Your task to perform on an android device: turn off location Image 0: 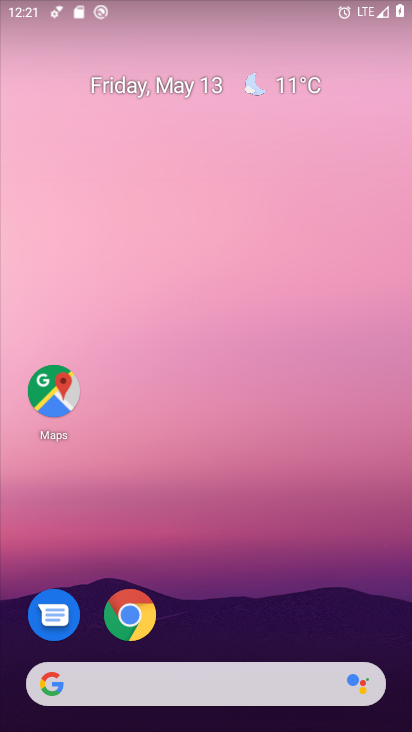
Step 0: drag from (281, 573) to (292, 1)
Your task to perform on an android device: turn off location Image 1: 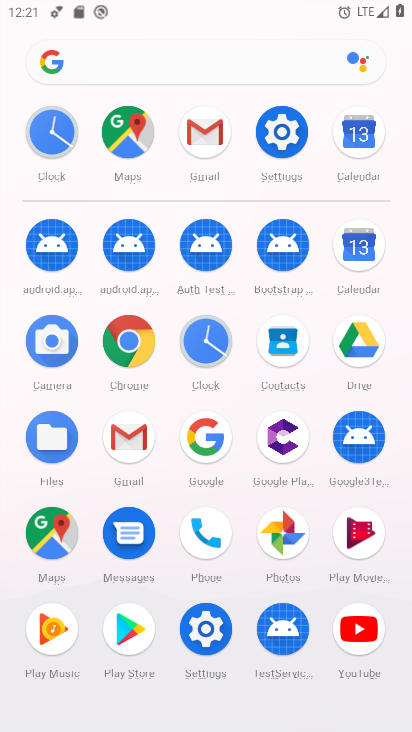
Step 1: click (282, 120)
Your task to perform on an android device: turn off location Image 2: 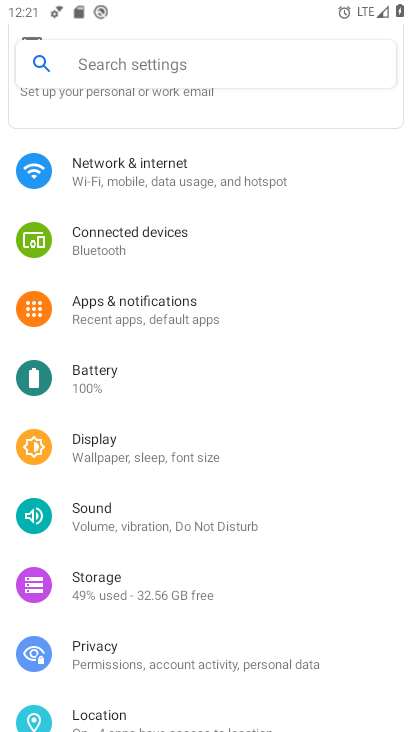
Step 2: drag from (151, 603) to (206, 255)
Your task to perform on an android device: turn off location Image 3: 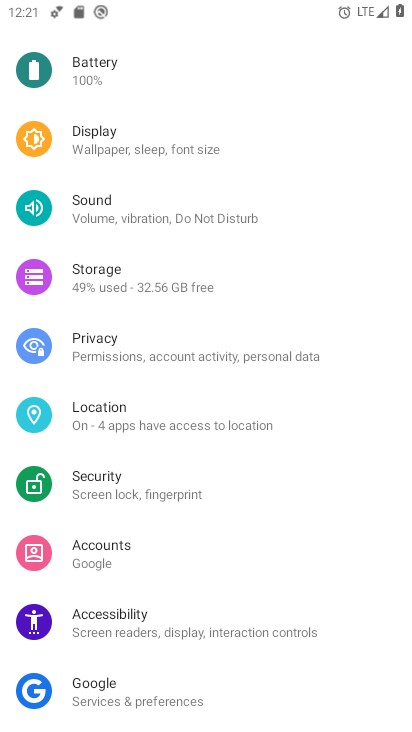
Step 3: click (179, 419)
Your task to perform on an android device: turn off location Image 4: 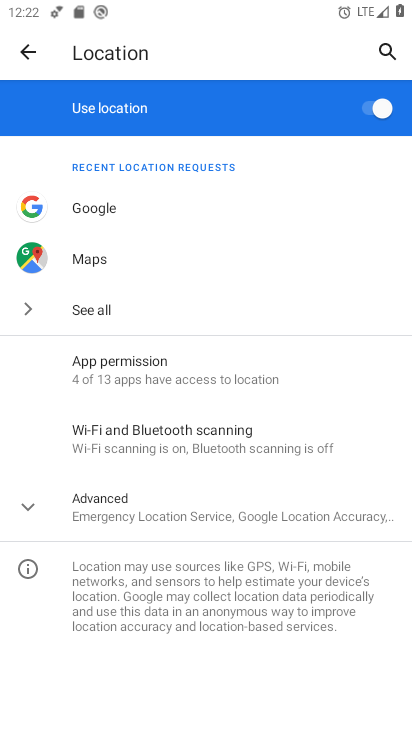
Step 4: click (372, 110)
Your task to perform on an android device: turn off location Image 5: 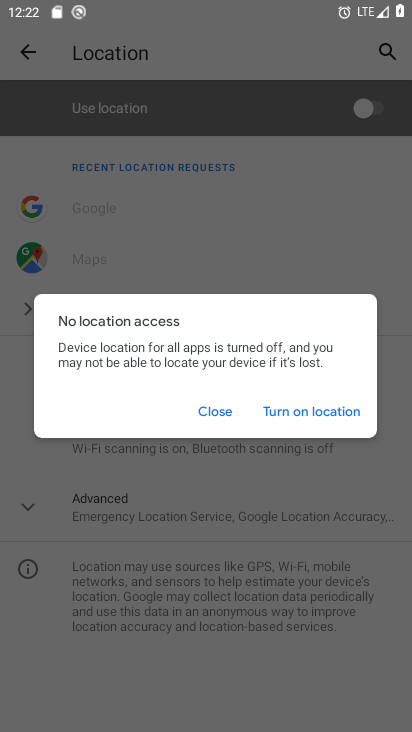
Step 5: click (227, 409)
Your task to perform on an android device: turn off location Image 6: 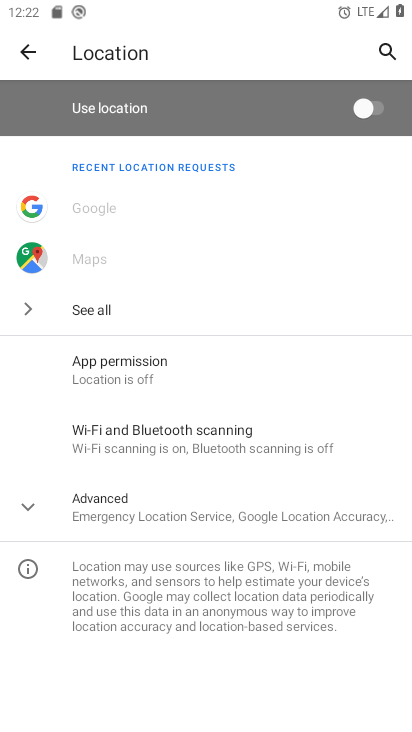
Step 6: task complete